Your task to perform on an android device: What is the news today? Image 0: 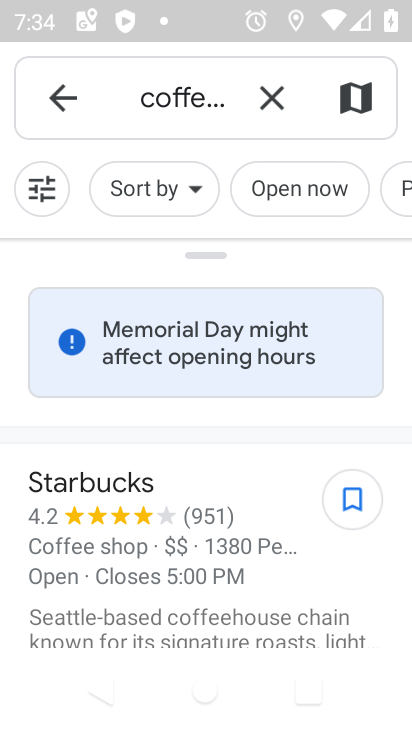
Step 0: press home button
Your task to perform on an android device: What is the news today? Image 1: 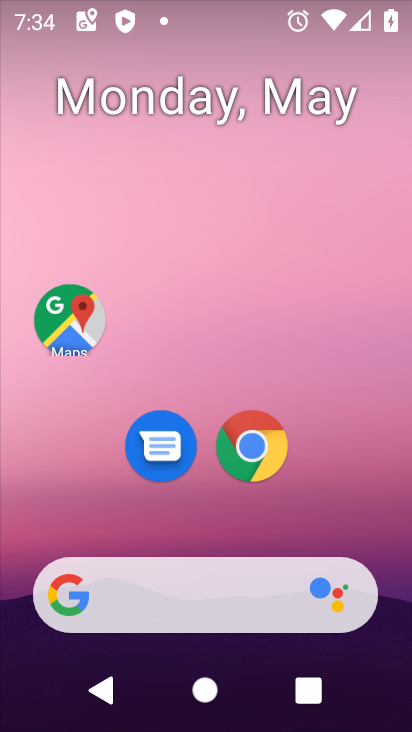
Step 1: click (219, 604)
Your task to perform on an android device: What is the news today? Image 2: 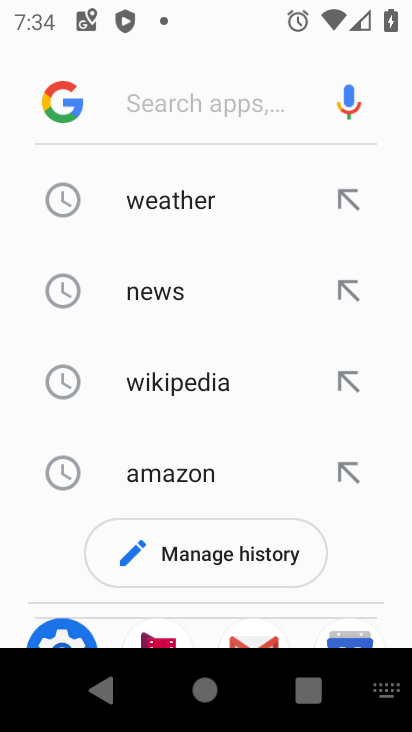
Step 2: click (155, 291)
Your task to perform on an android device: What is the news today? Image 3: 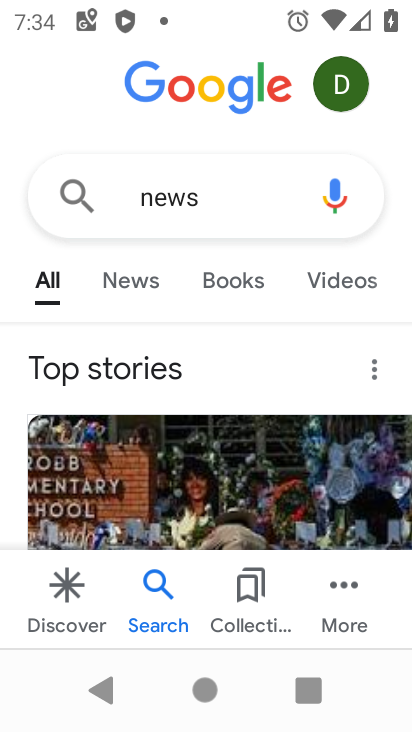
Step 3: task complete